Your task to perform on an android device: install app "Cash App" Image 0: 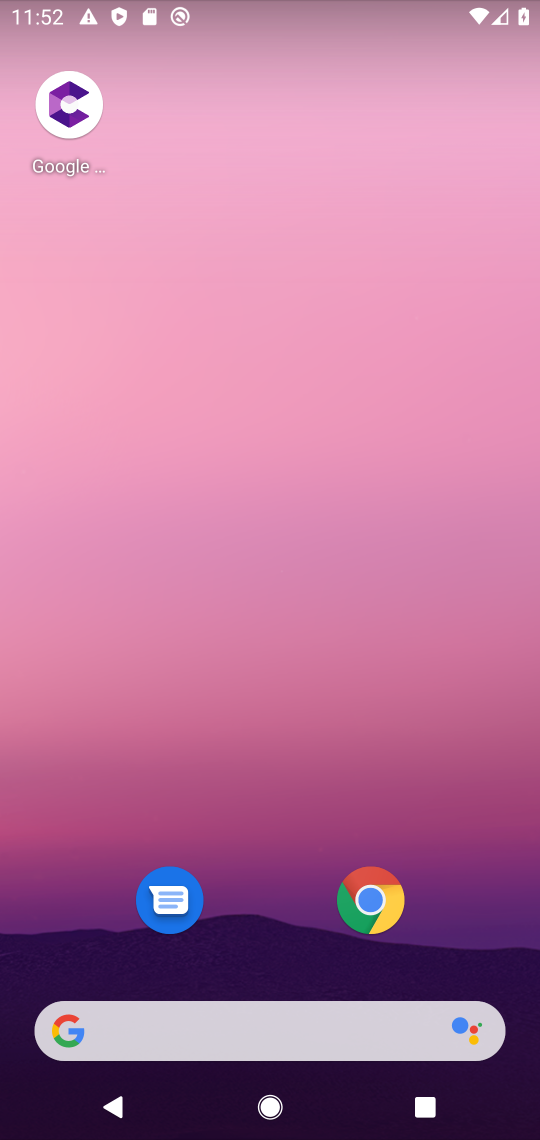
Step 0: click (181, 25)
Your task to perform on an android device: install app "Cash App" Image 1: 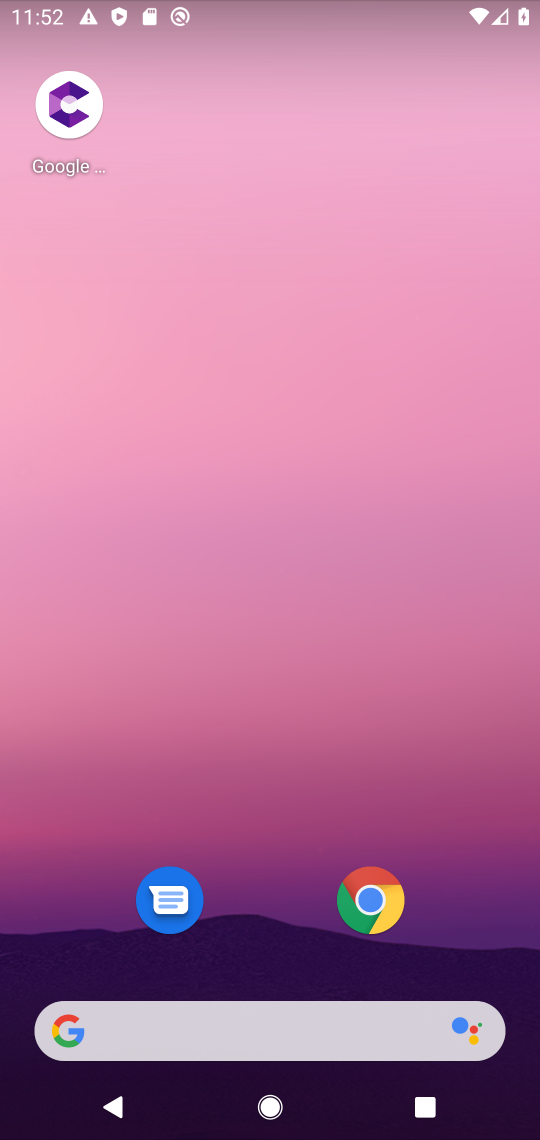
Step 1: drag from (119, 952) to (267, 214)
Your task to perform on an android device: install app "Cash App" Image 2: 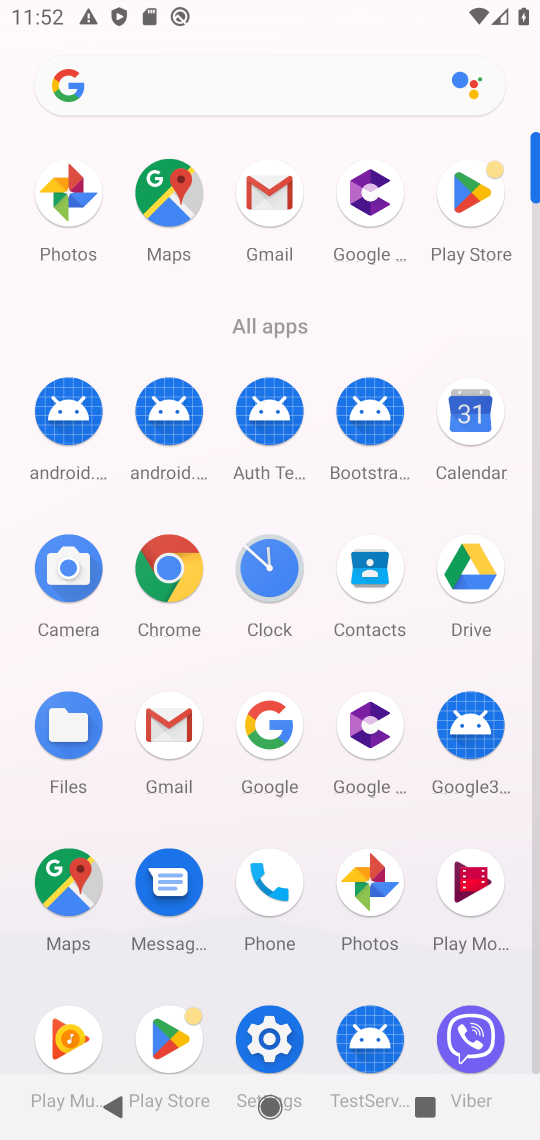
Step 2: click (473, 193)
Your task to perform on an android device: install app "Cash App" Image 3: 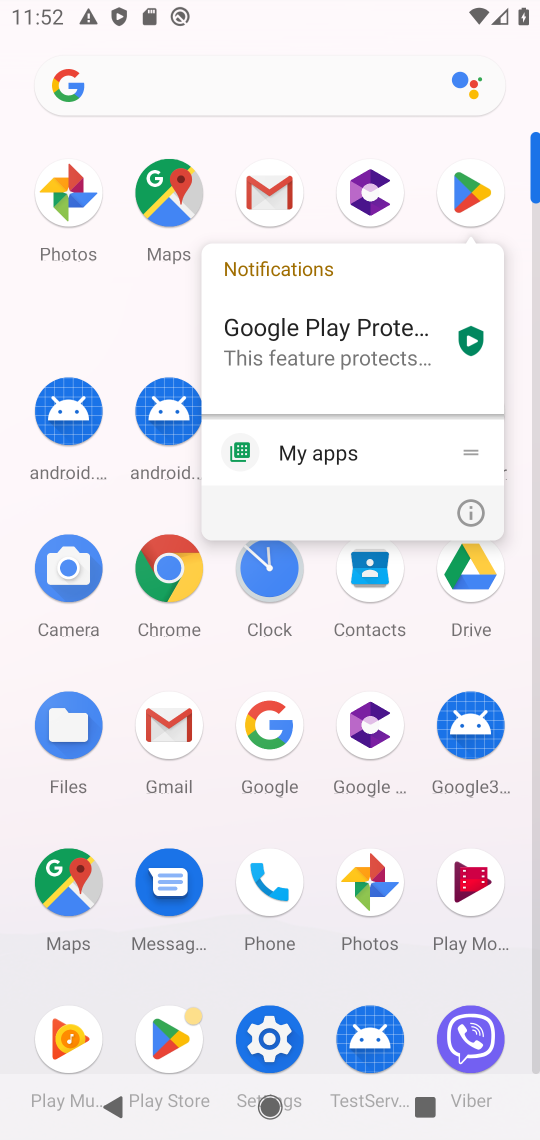
Step 3: click (473, 193)
Your task to perform on an android device: install app "Cash App" Image 4: 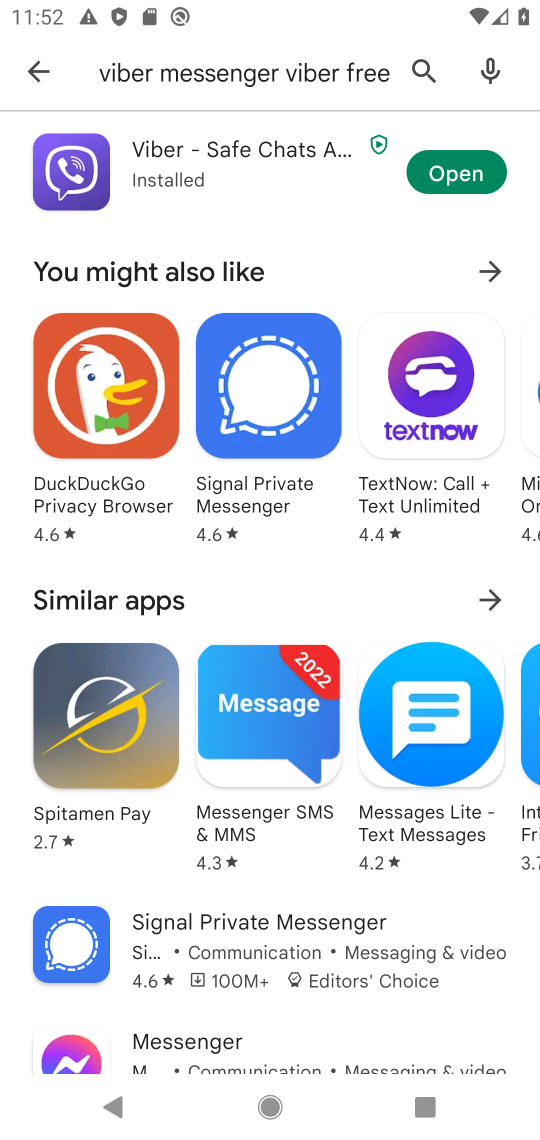
Step 4: click (417, 70)
Your task to perform on an android device: install app "Cash App" Image 5: 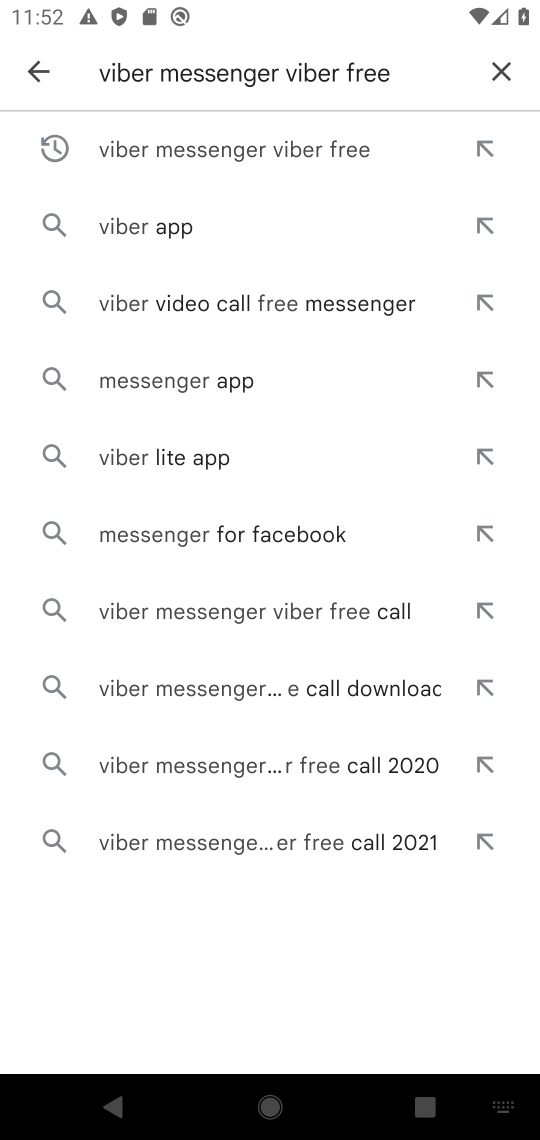
Step 5: click (496, 59)
Your task to perform on an android device: install app "Cash App" Image 6: 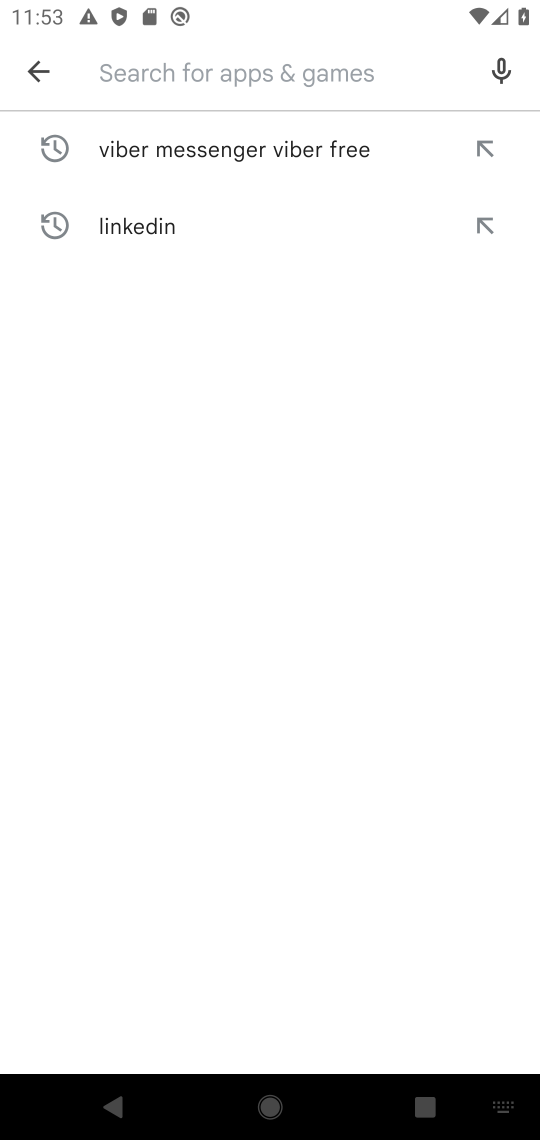
Step 6: type "cash app"
Your task to perform on an android device: install app "Cash App" Image 7: 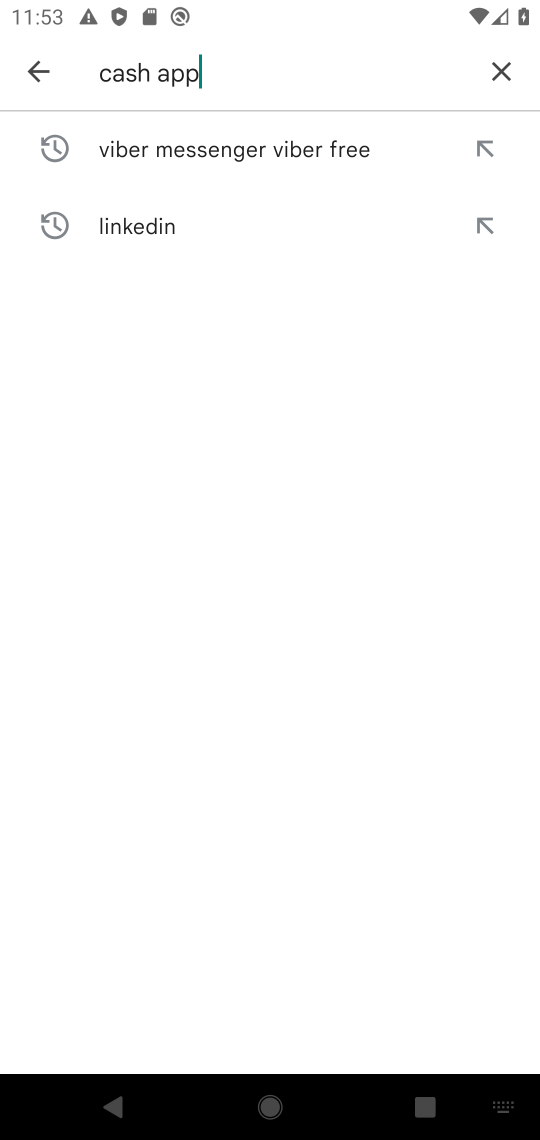
Step 7: type ""
Your task to perform on an android device: install app "Cash App" Image 8: 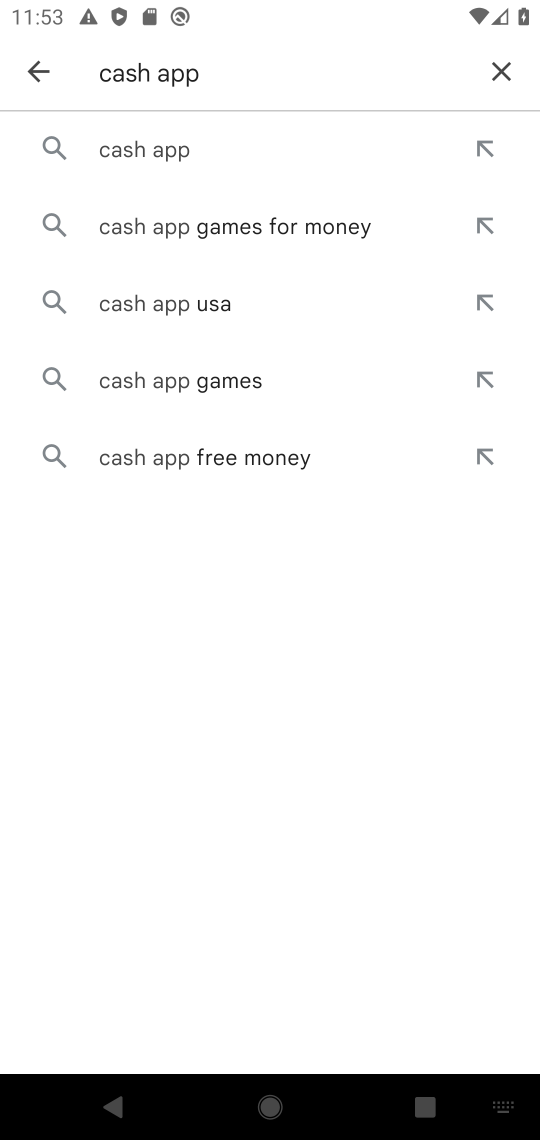
Step 8: click (252, 128)
Your task to perform on an android device: install app "Cash App" Image 9: 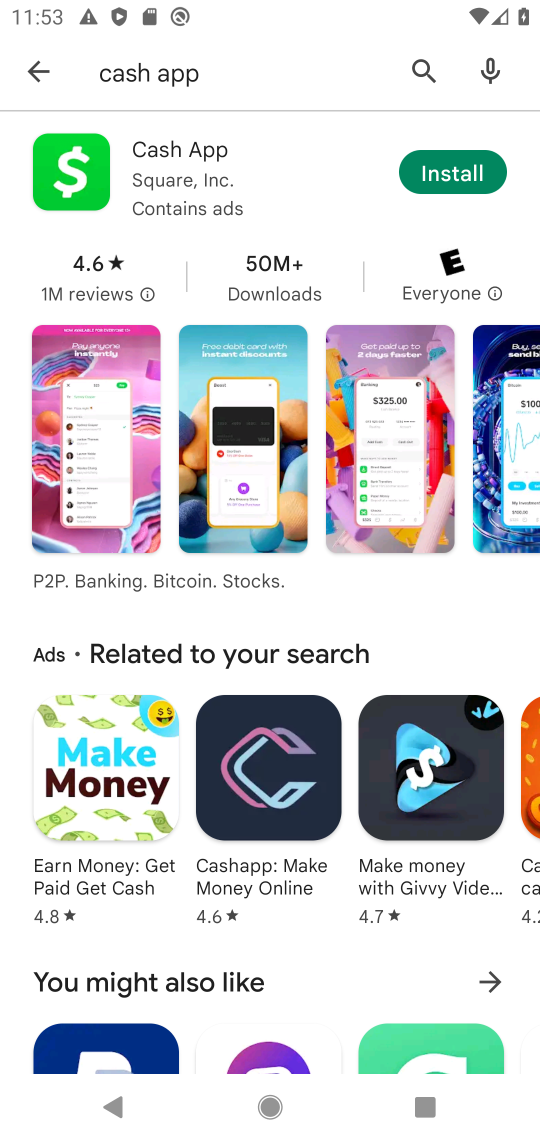
Step 9: click (439, 173)
Your task to perform on an android device: install app "Cash App" Image 10: 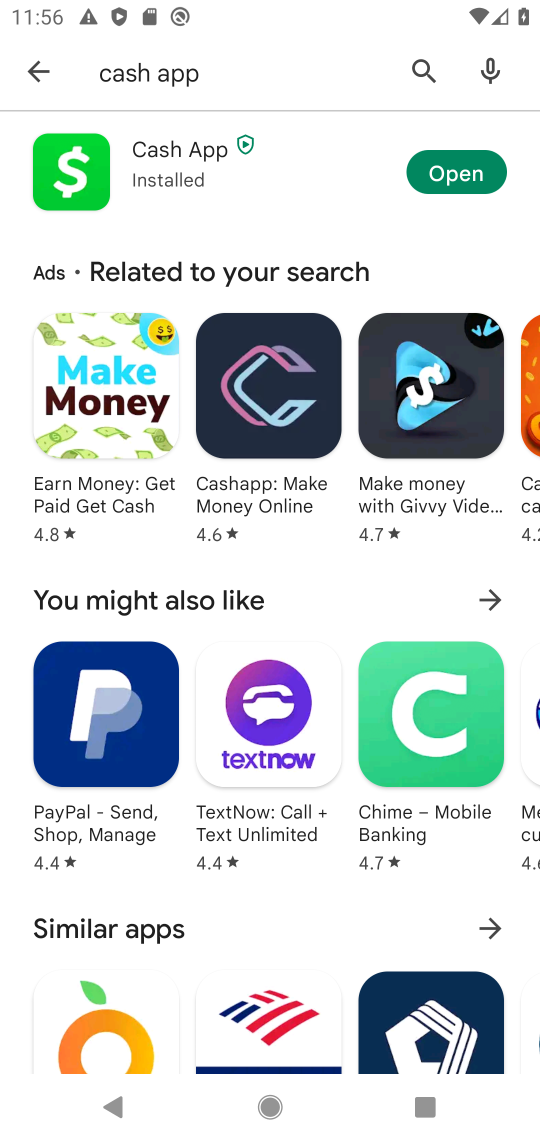
Step 10: task complete